Your task to perform on an android device: Open location settings Image 0: 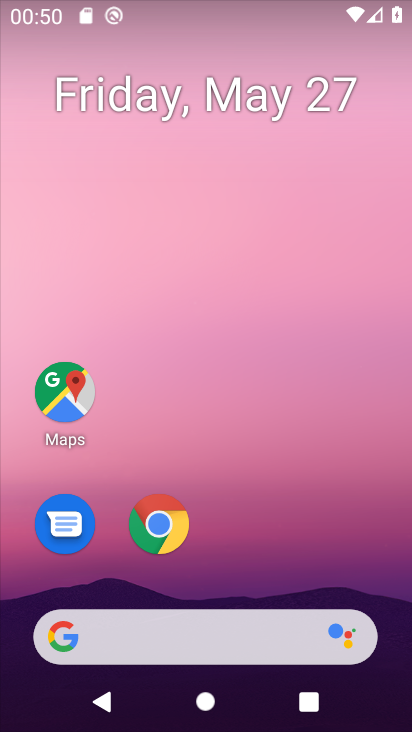
Step 0: drag from (265, 556) to (284, 2)
Your task to perform on an android device: Open location settings Image 1: 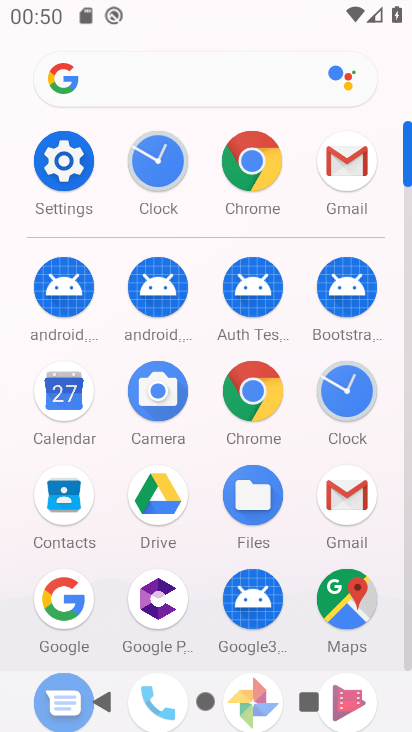
Step 1: click (64, 157)
Your task to perform on an android device: Open location settings Image 2: 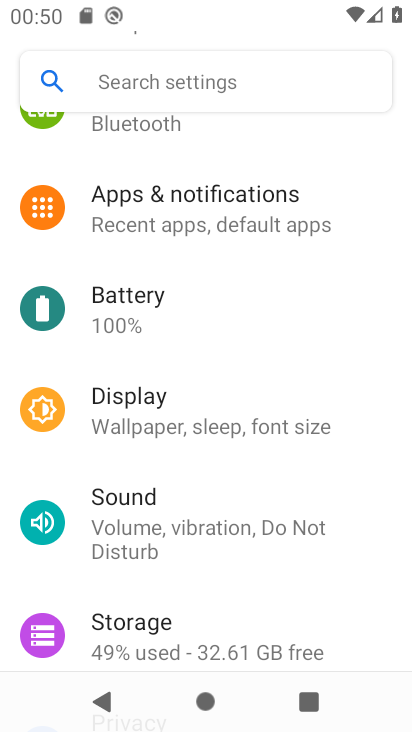
Step 2: drag from (229, 562) to (256, 131)
Your task to perform on an android device: Open location settings Image 3: 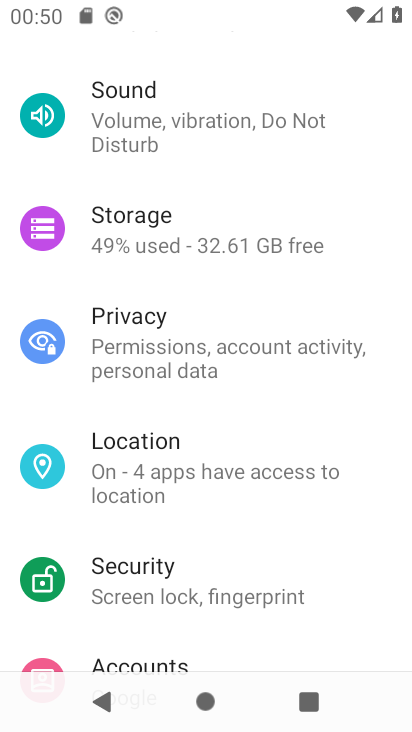
Step 3: click (214, 473)
Your task to perform on an android device: Open location settings Image 4: 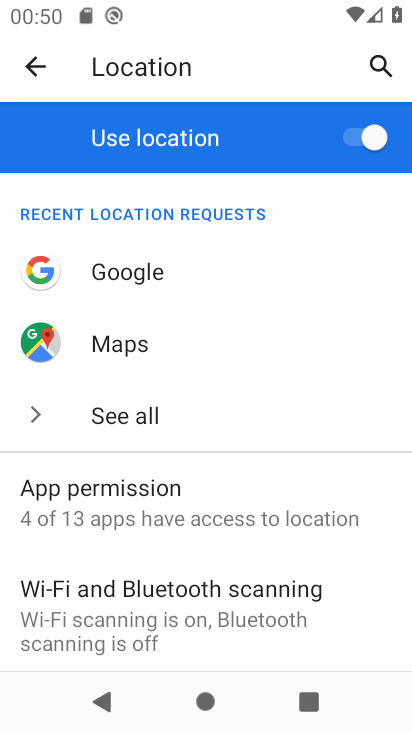
Step 4: task complete